Your task to perform on an android device: Open settings Image 0: 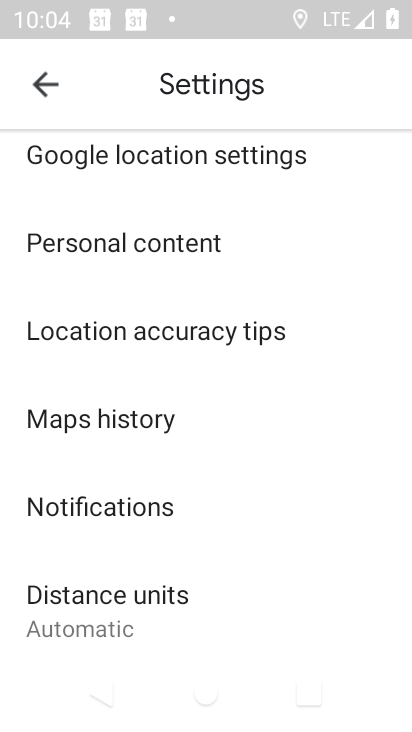
Step 0: press home button
Your task to perform on an android device: Open settings Image 1: 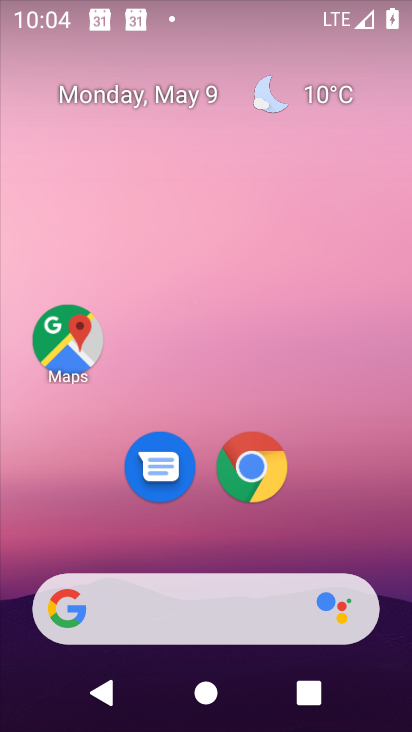
Step 1: drag from (337, 545) to (320, 8)
Your task to perform on an android device: Open settings Image 2: 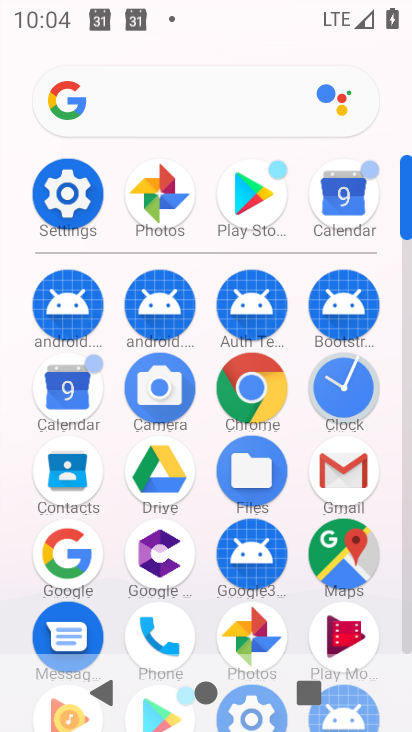
Step 2: click (66, 203)
Your task to perform on an android device: Open settings Image 3: 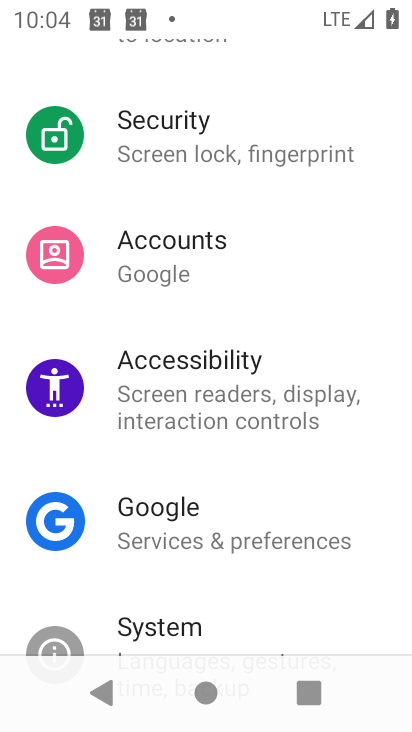
Step 3: task complete